Your task to perform on an android device: What's on my calendar today? Image 0: 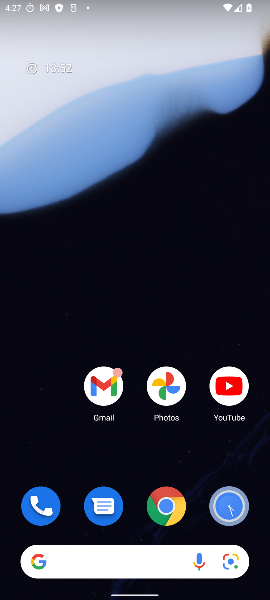
Step 0: drag from (145, 476) to (121, 42)
Your task to perform on an android device: What's on my calendar today? Image 1: 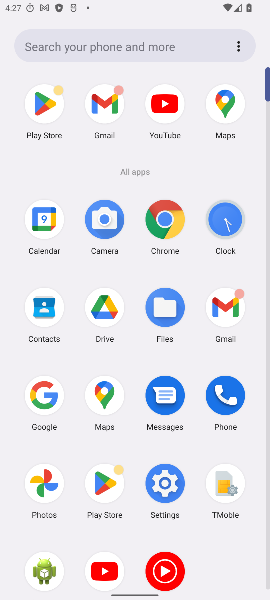
Step 1: click (51, 230)
Your task to perform on an android device: What's on my calendar today? Image 2: 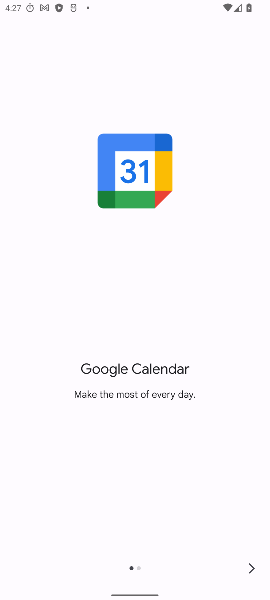
Step 2: click (248, 573)
Your task to perform on an android device: What's on my calendar today? Image 3: 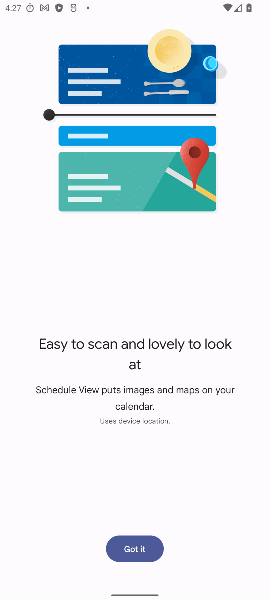
Step 3: click (134, 552)
Your task to perform on an android device: What's on my calendar today? Image 4: 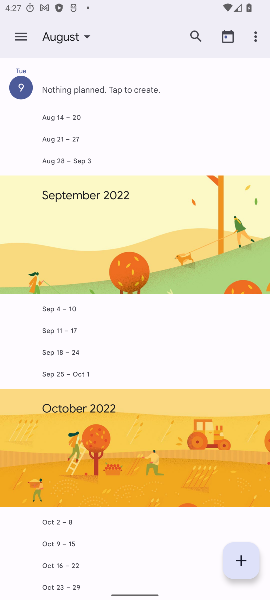
Step 4: click (56, 33)
Your task to perform on an android device: What's on my calendar today? Image 5: 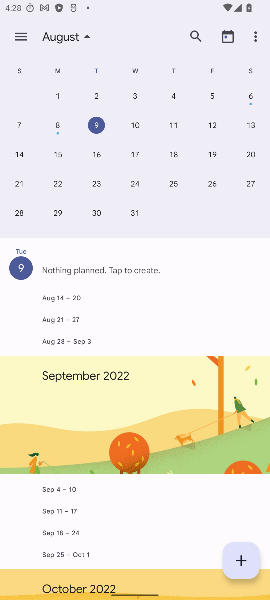
Step 5: task complete